Your task to perform on an android device: What's the weather today? Image 0: 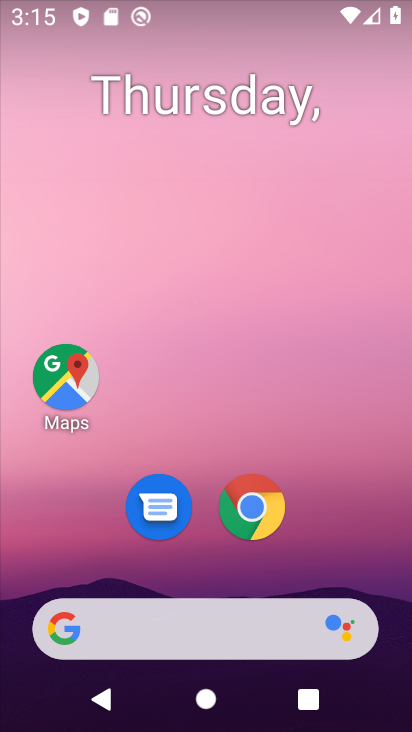
Step 0: click (247, 514)
Your task to perform on an android device: What's the weather today? Image 1: 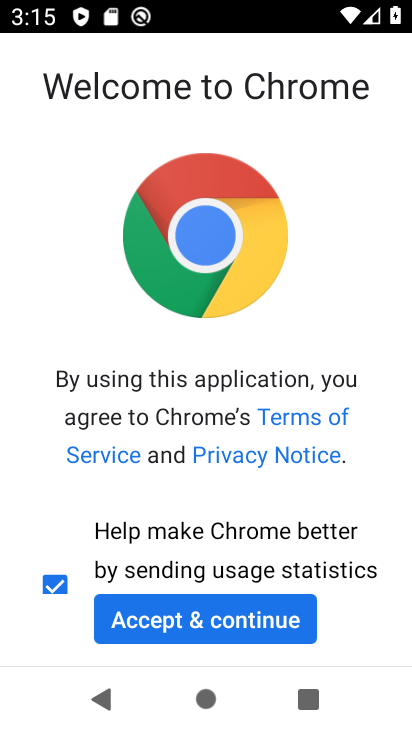
Step 1: click (150, 623)
Your task to perform on an android device: What's the weather today? Image 2: 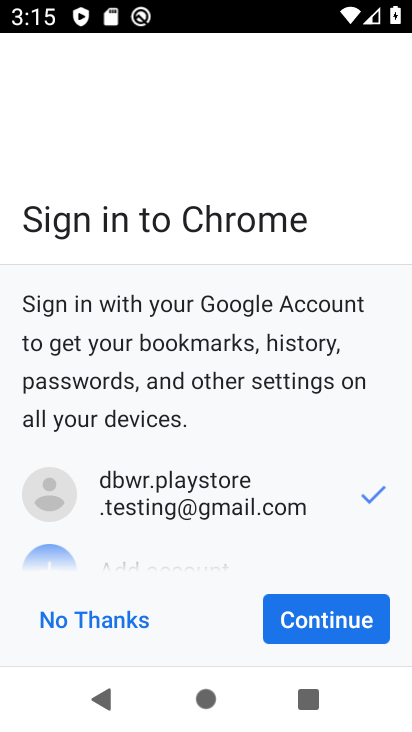
Step 2: click (361, 626)
Your task to perform on an android device: What's the weather today? Image 3: 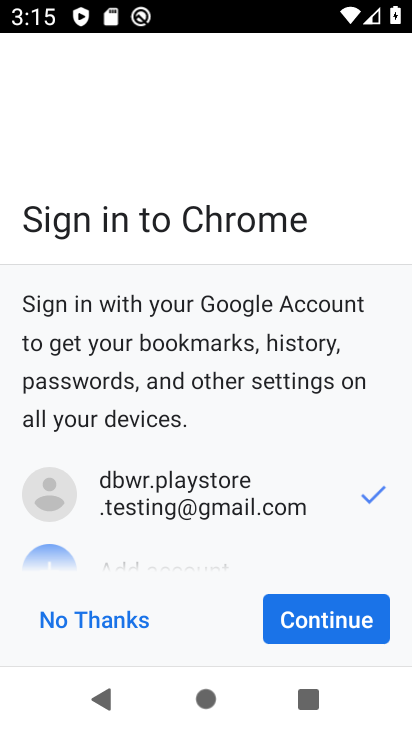
Step 3: click (361, 626)
Your task to perform on an android device: What's the weather today? Image 4: 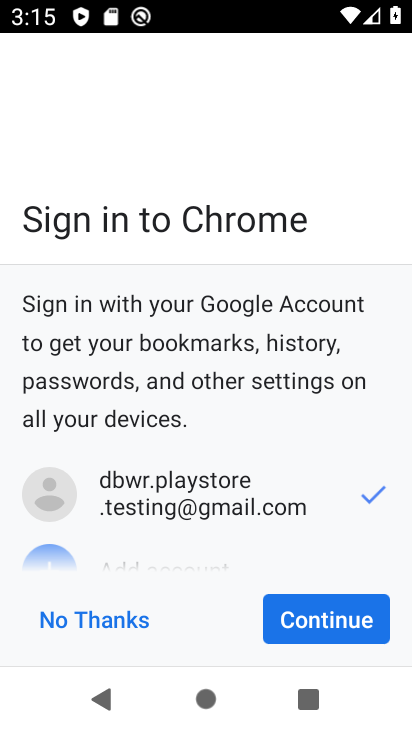
Step 4: click (361, 626)
Your task to perform on an android device: What's the weather today? Image 5: 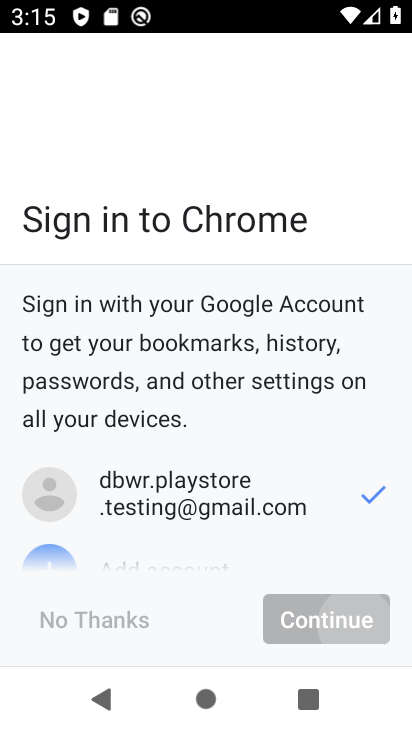
Step 5: click (361, 626)
Your task to perform on an android device: What's the weather today? Image 6: 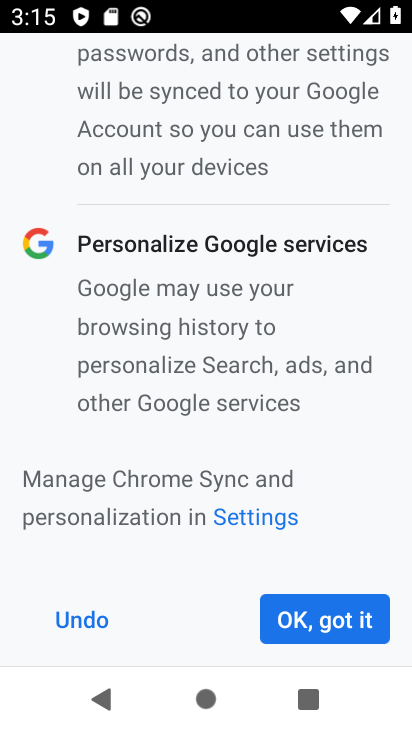
Step 6: click (361, 626)
Your task to perform on an android device: What's the weather today? Image 7: 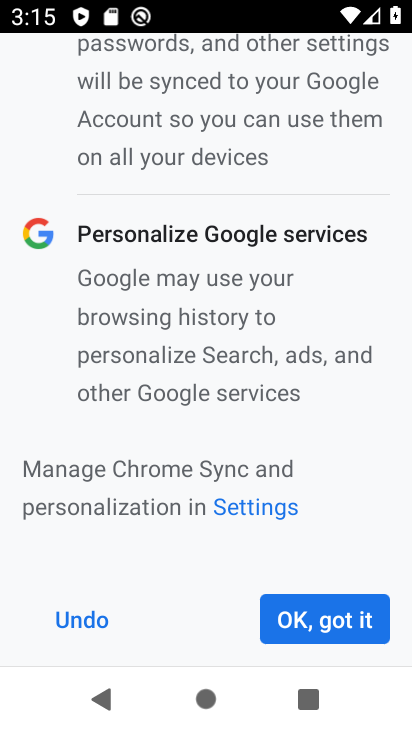
Step 7: click (361, 626)
Your task to perform on an android device: What's the weather today? Image 8: 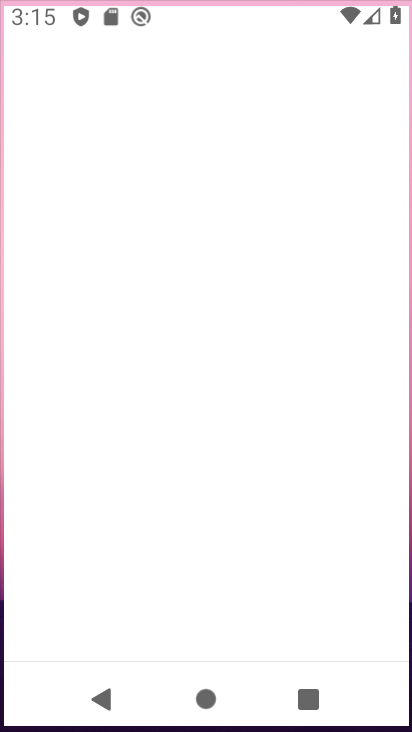
Step 8: click (361, 626)
Your task to perform on an android device: What's the weather today? Image 9: 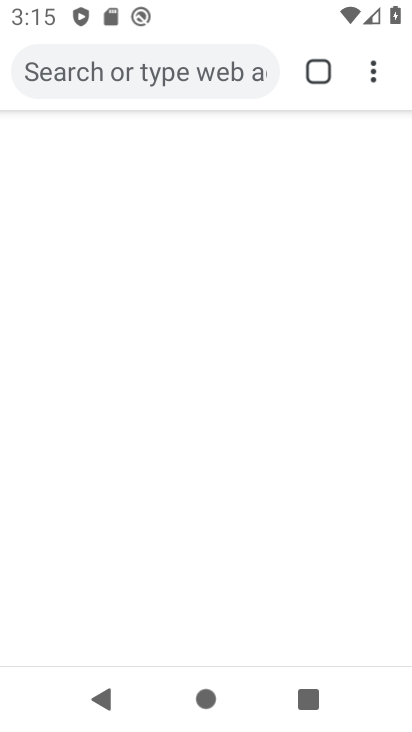
Step 9: click (361, 626)
Your task to perform on an android device: What's the weather today? Image 10: 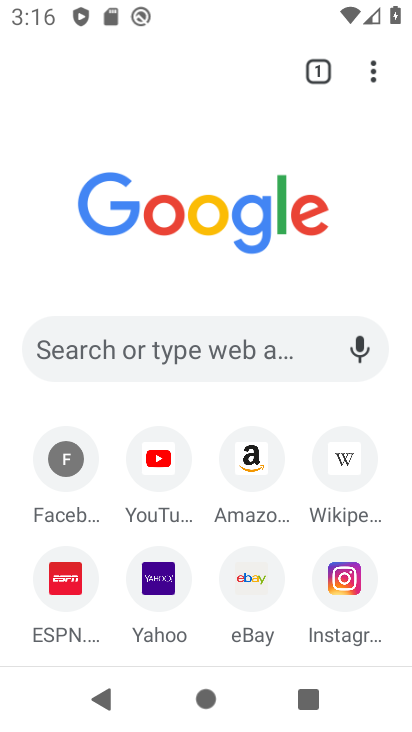
Step 10: click (199, 349)
Your task to perform on an android device: What's the weather today? Image 11: 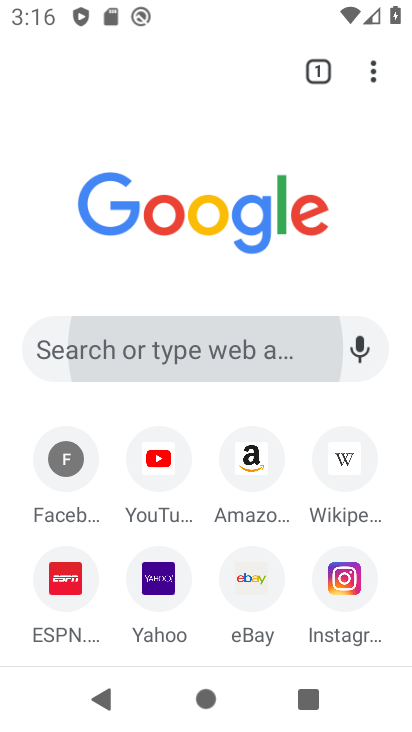
Step 11: click (199, 349)
Your task to perform on an android device: What's the weather today? Image 12: 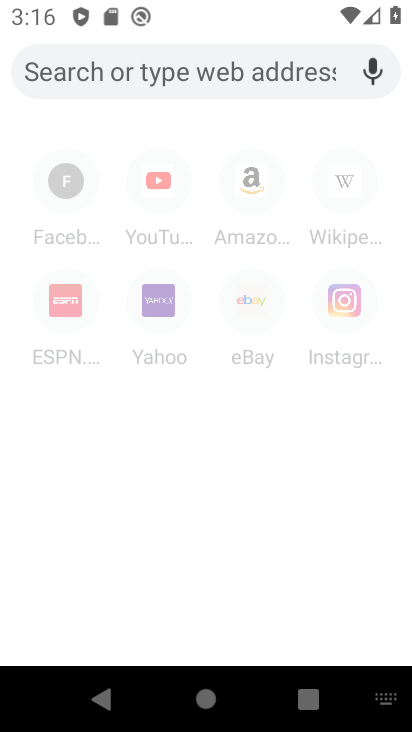
Step 12: type "What's the weather today?"
Your task to perform on an android device: What's the weather today? Image 13: 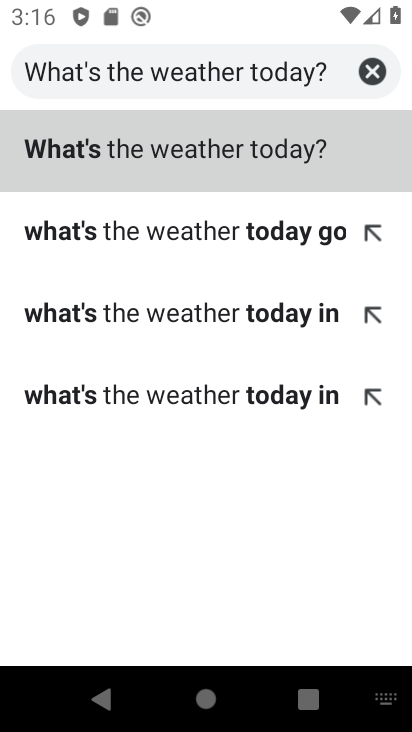
Step 13: click (149, 139)
Your task to perform on an android device: What's the weather today? Image 14: 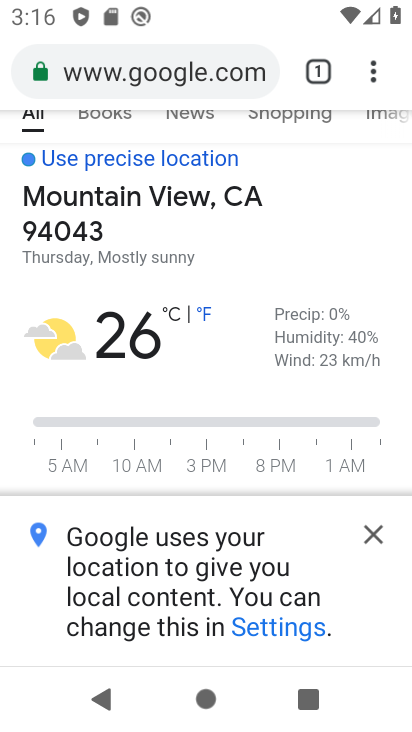
Step 14: task complete